Your task to perform on an android device: Open ESPN.com Image 0: 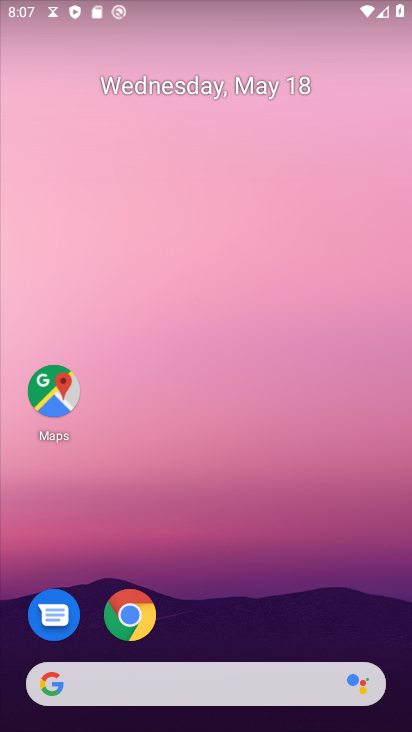
Step 0: click (138, 609)
Your task to perform on an android device: Open ESPN.com Image 1: 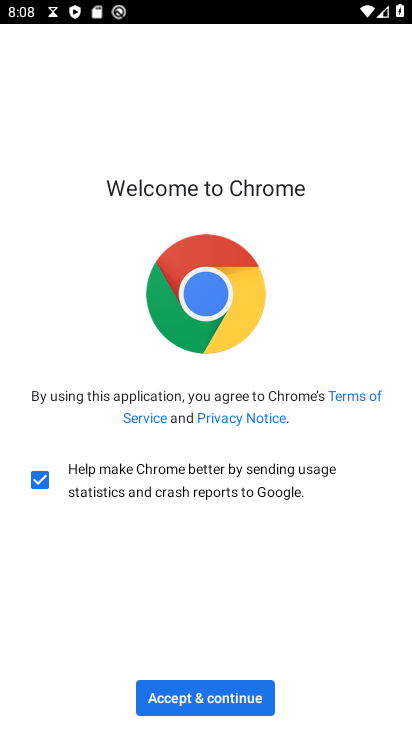
Step 1: click (226, 699)
Your task to perform on an android device: Open ESPN.com Image 2: 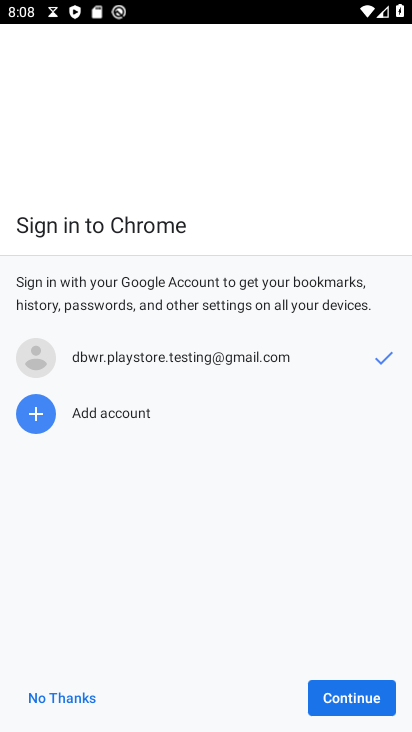
Step 2: click (351, 706)
Your task to perform on an android device: Open ESPN.com Image 3: 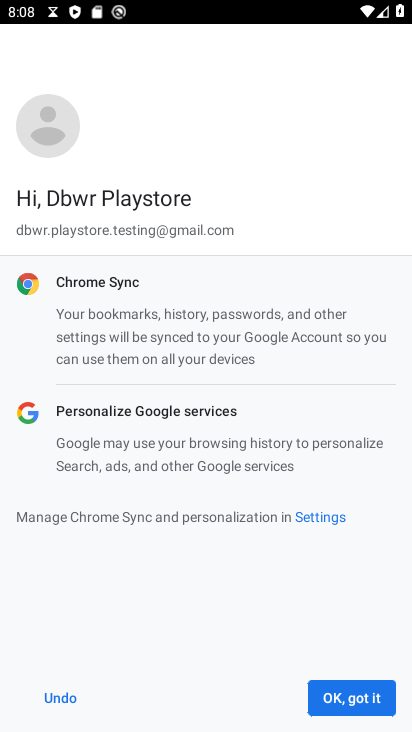
Step 3: click (351, 706)
Your task to perform on an android device: Open ESPN.com Image 4: 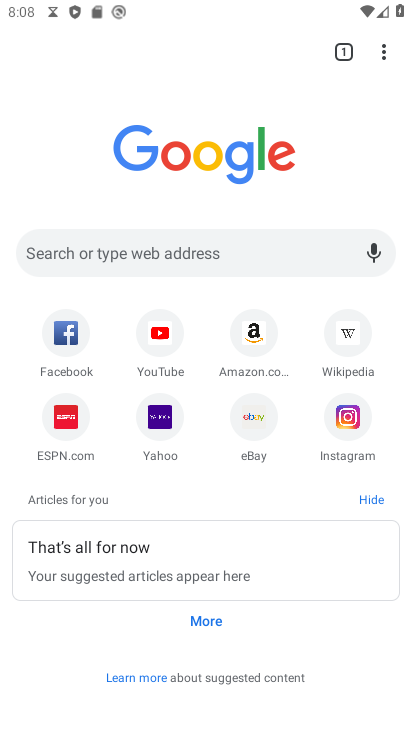
Step 4: click (73, 413)
Your task to perform on an android device: Open ESPN.com Image 5: 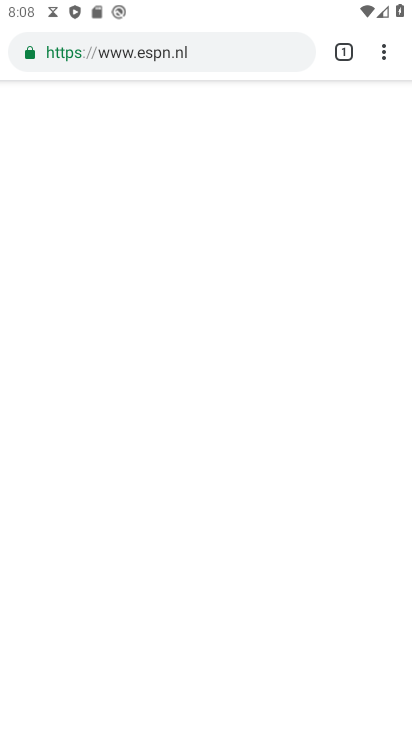
Step 5: task complete